Your task to perform on an android device: turn on airplane mode Image 0: 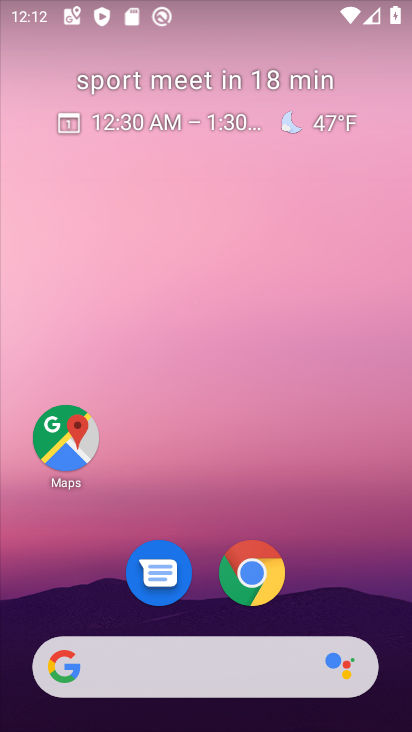
Step 0: drag from (190, 597) to (234, 258)
Your task to perform on an android device: turn on airplane mode Image 1: 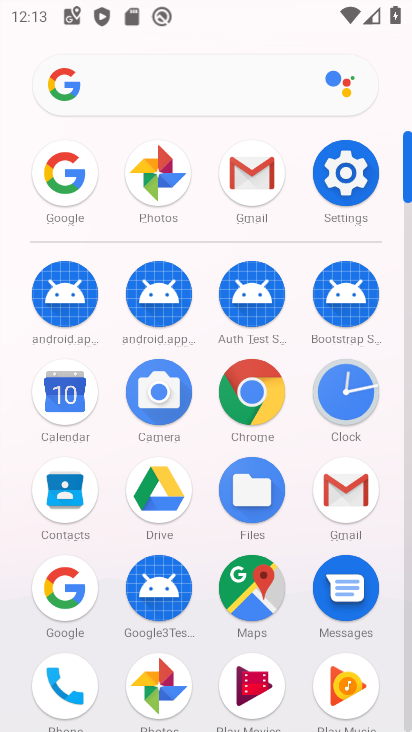
Step 1: click (346, 166)
Your task to perform on an android device: turn on airplane mode Image 2: 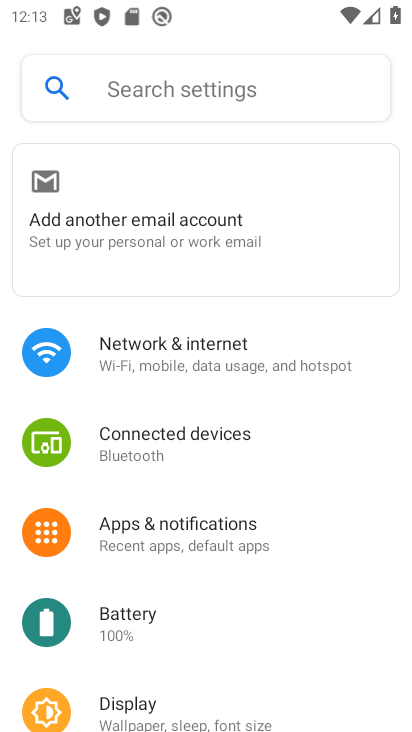
Step 2: drag from (202, 644) to (255, 215)
Your task to perform on an android device: turn on airplane mode Image 3: 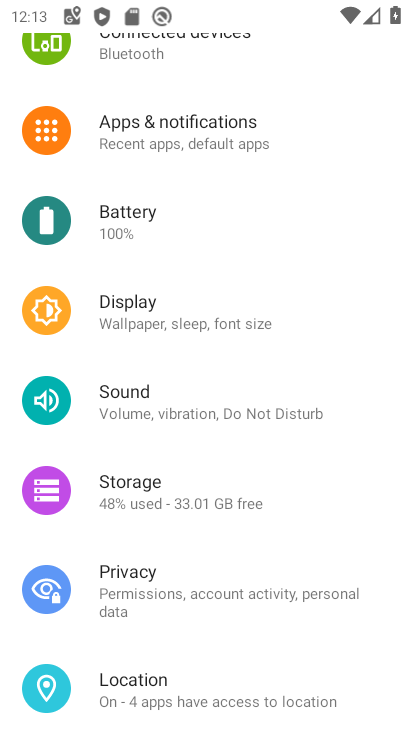
Step 3: drag from (197, 230) to (301, 639)
Your task to perform on an android device: turn on airplane mode Image 4: 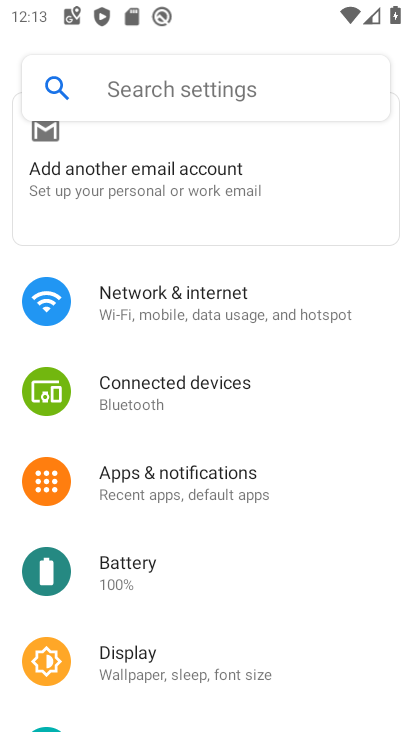
Step 4: click (181, 314)
Your task to perform on an android device: turn on airplane mode Image 5: 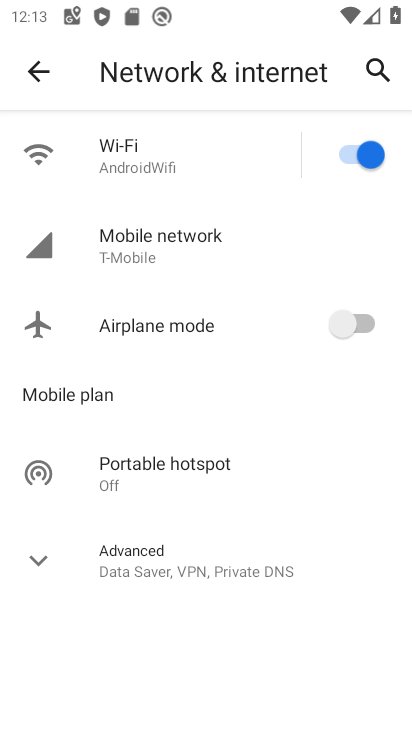
Step 5: click (209, 345)
Your task to perform on an android device: turn on airplane mode Image 6: 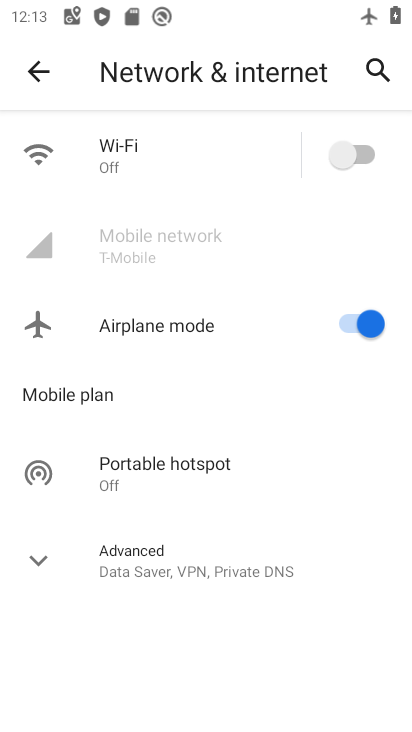
Step 6: task complete